Your task to perform on an android device: What is the news today? Image 0: 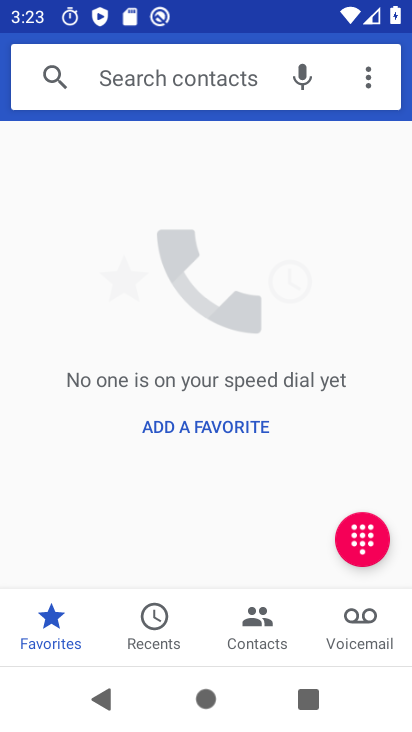
Step 0: press home button
Your task to perform on an android device: What is the news today? Image 1: 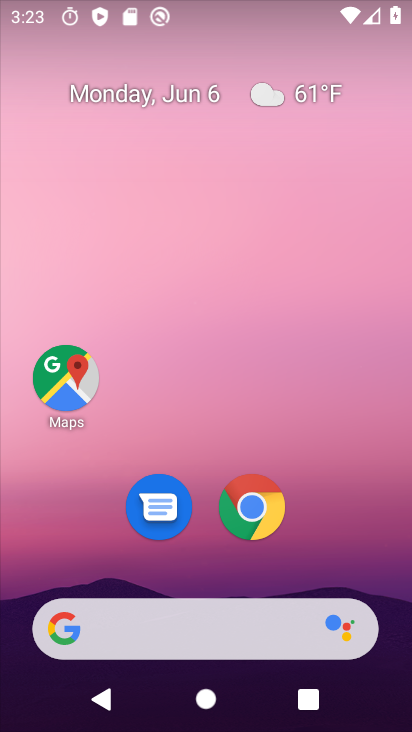
Step 1: drag from (209, 574) to (215, 165)
Your task to perform on an android device: What is the news today? Image 2: 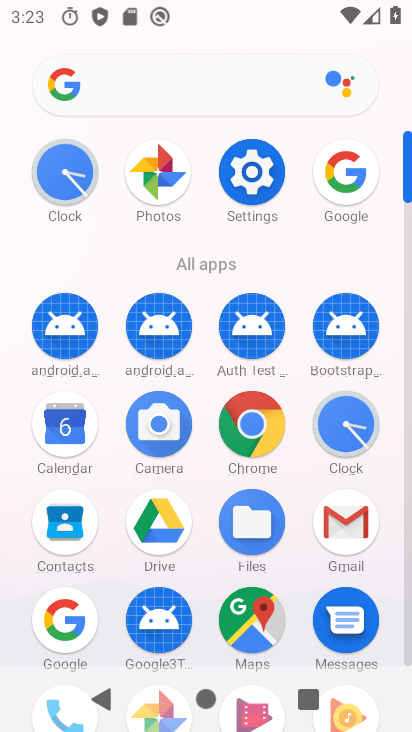
Step 2: click (59, 609)
Your task to perform on an android device: What is the news today? Image 3: 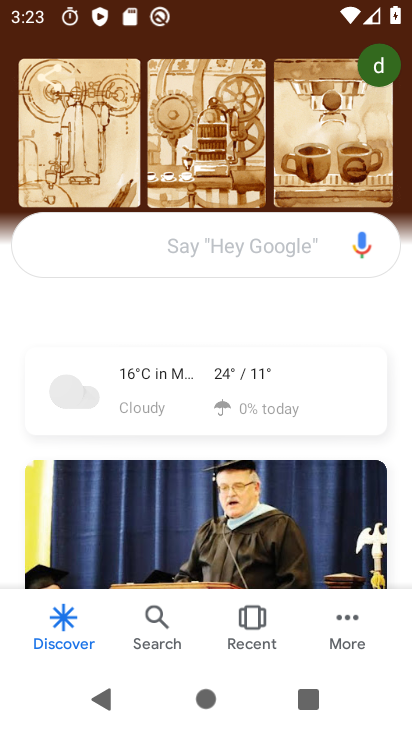
Step 3: click (198, 245)
Your task to perform on an android device: What is the news today? Image 4: 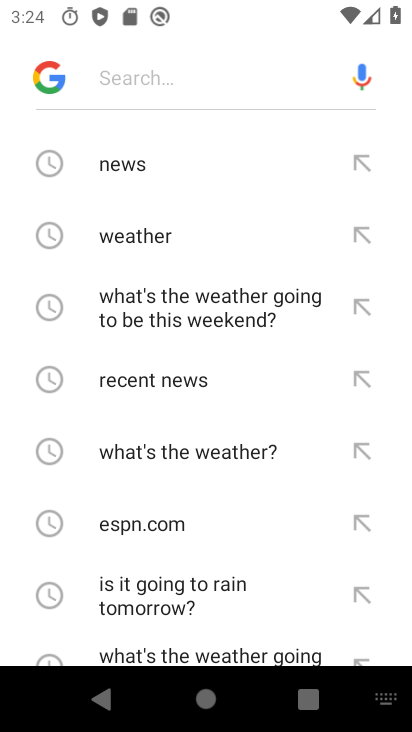
Step 4: click (127, 173)
Your task to perform on an android device: What is the news today? Image 5: 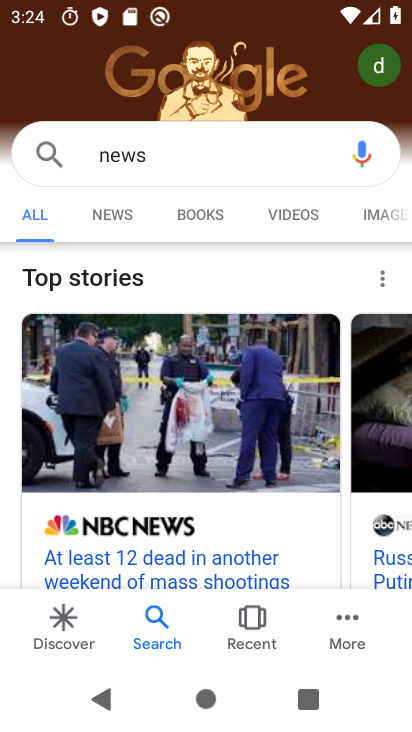
Step 5: click (109, 217)
Your task to perform on an android device: What is the news today? Image 6: 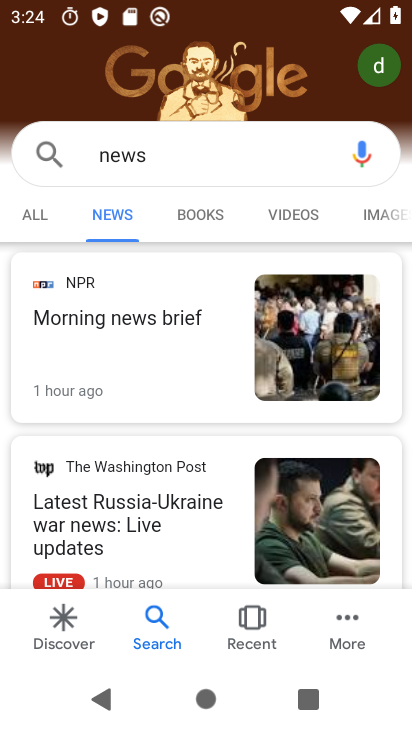
Step 6: task complete